Your task to perform on an android device: clear history in the chrome app Image 0: 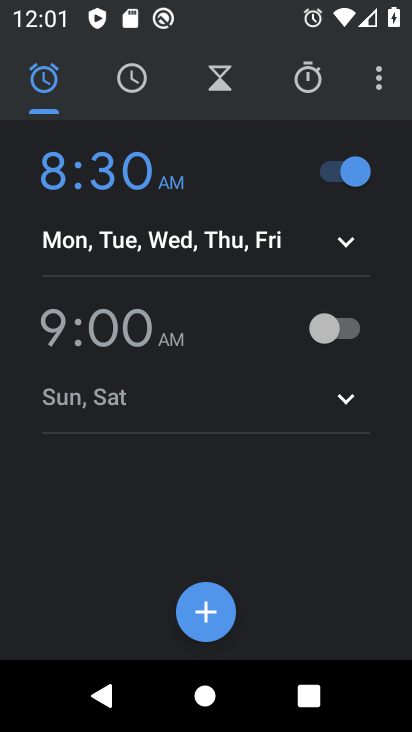
Step 0: press back button
Your task to perform on an android device: clear history in the chrome app Image 1: 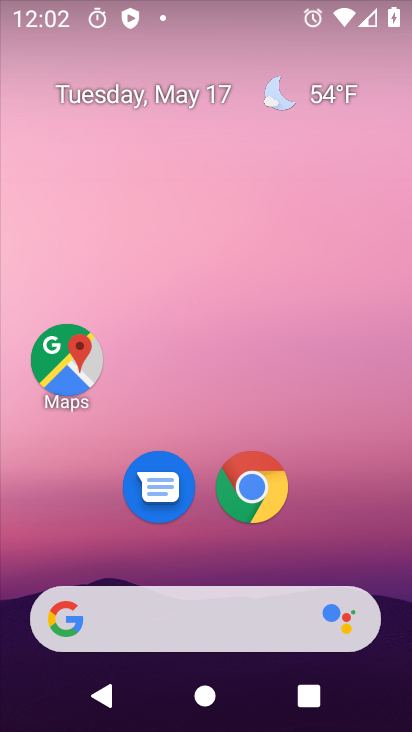
Step 1: click (270, 489)
Your task to perform on an android device: clear history in the chrome app Image 2: 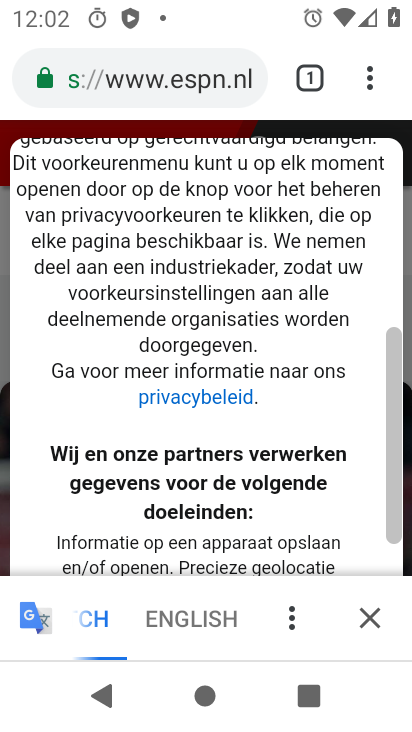
Step 2: click (370, 76)
Your task to perform on an android device: clear history in the chrome app Image 3: 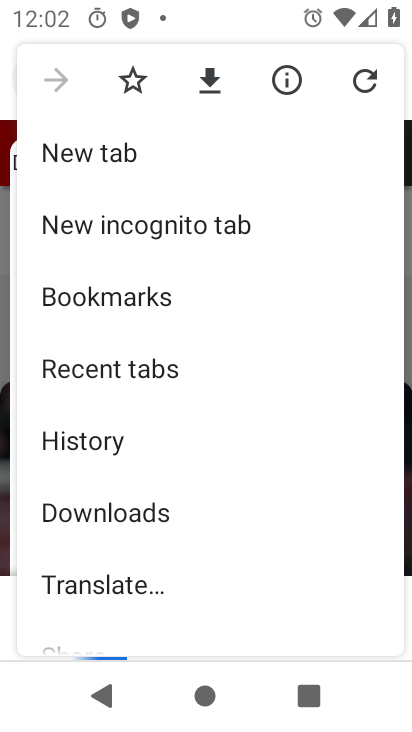
Step 3: click (105, 437)
Your task to perform on an android device: clear history in the chrome app Image 4: 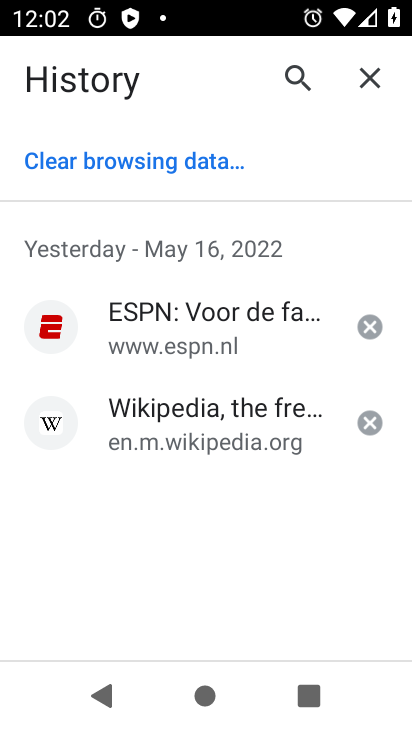
Step 4: click (128, 168)
Your task to perform on an android device: clear history in the chrome app Image 5: 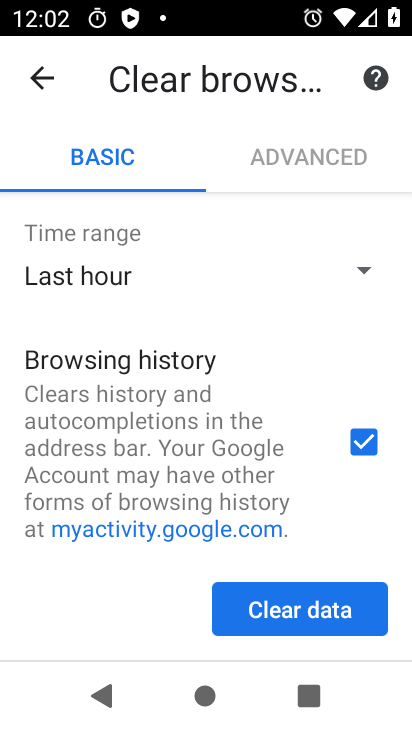
Step 5: click (311, 611)
Your task to perform on an android device: clear history in the chrome app Image 6: 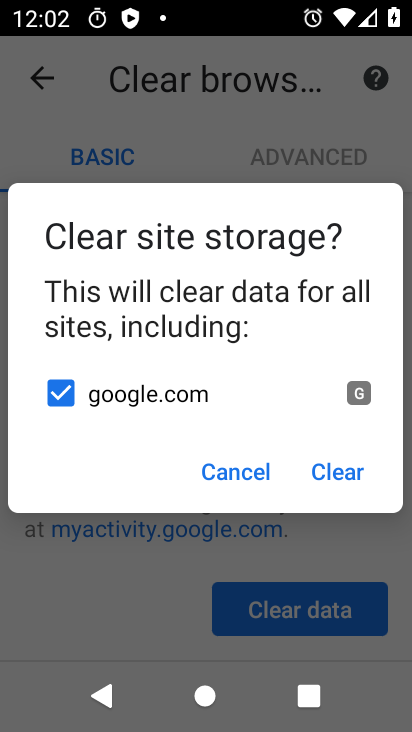
Step 6: click (332, 462)
Your task to perform on an android device: clear history in the chrome app Image 7: 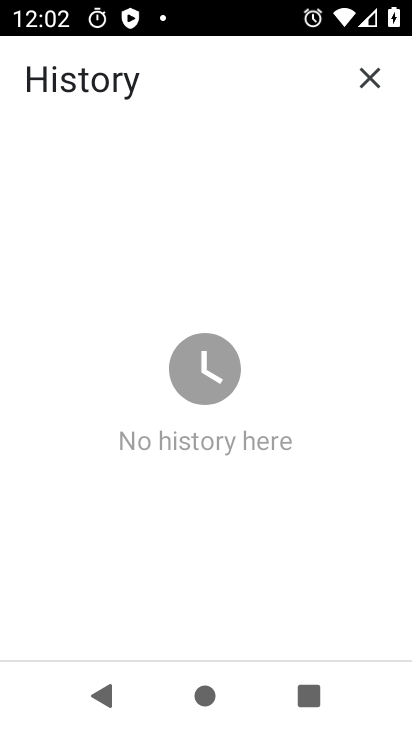
Step 7: task complete